Your task to perform on an android device: check the backup settings in the google photos Image 0: 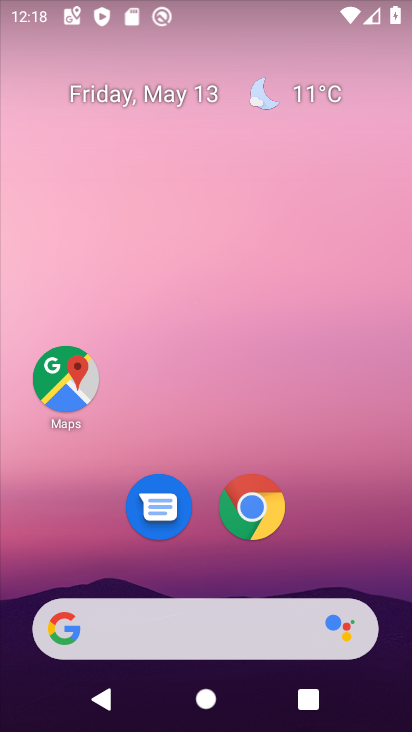
Step 0: drag from (204, 594) to (140, 33)
Your task to perform on an android device: check the backup settings in the google photos Image 1: 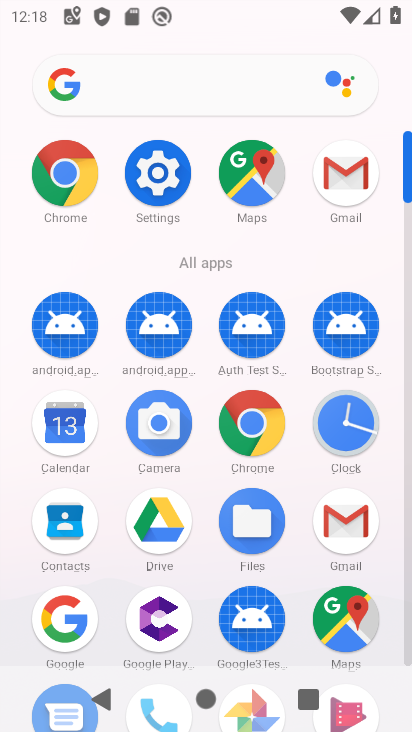
Step 1: drag from (211, 655) to (203, 196)
Your task to perform on an android device: check the backup settings in the google photos Image 2: 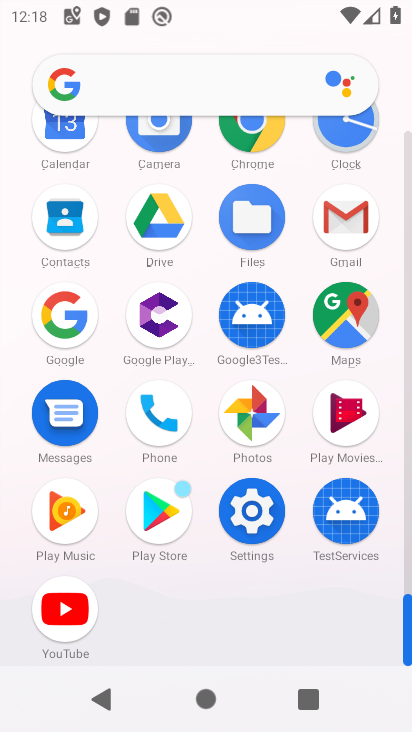
Step 2: click (260, 423)
Your task to perform on an android device: check the backup settings in the google photos Image 3: 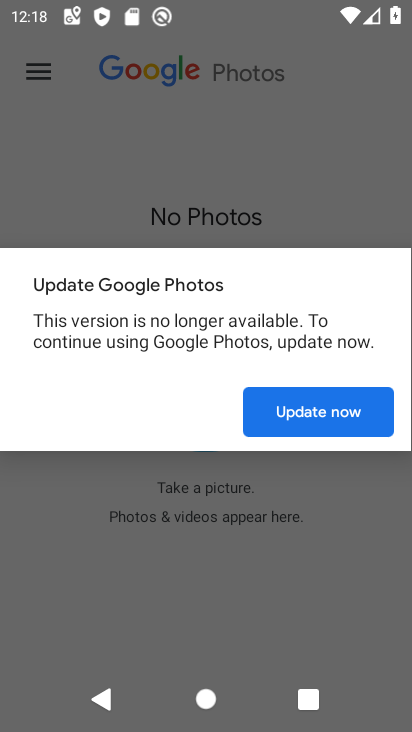
Step 3: click (310, 406)
Your task to perform on an android device: check the backup settings in the google photos Image 4: 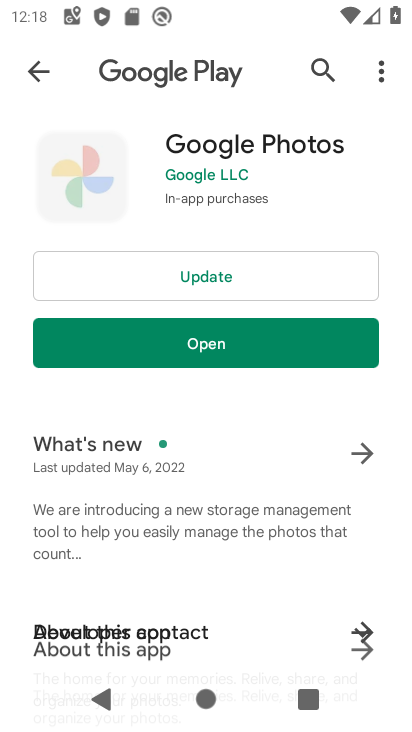
Step 4: click (242, 343)
Your task to perform on an android device: check the backup settings in the google photos Image 5: 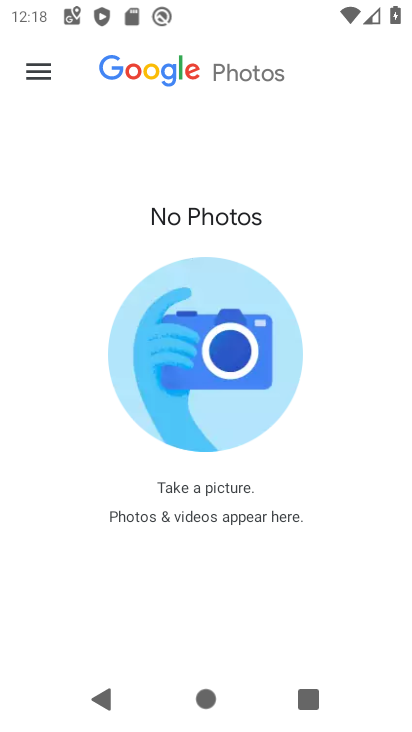
Step 5: click (30, 74)
Your task to perform on an android device: check the backup settings in the google photos Image 6: 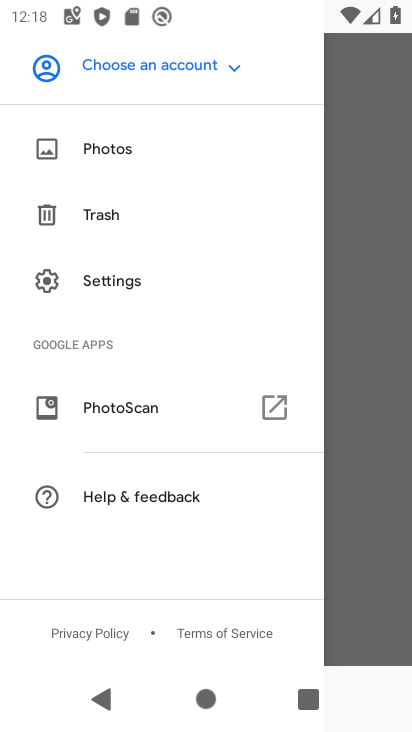
Step 6: click (99, 71)
Your task to perform on an android device: check the backup settings in the google photos Image 7: 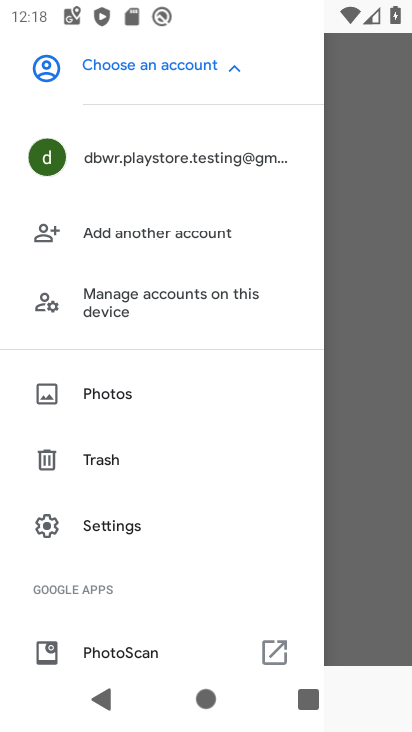
Step 7: click (145, 166)
Your task to perform on an android device: check the backup settings in the google photos Image 8: 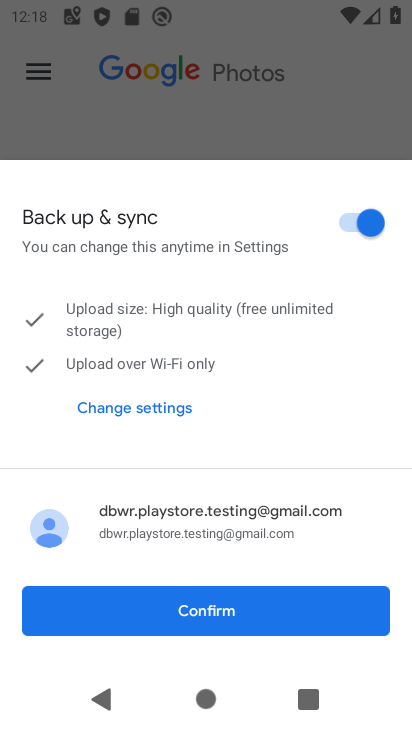
Step 8: click (151, 406)
Your task to perform on an android device: check the backup settings in the google photos Image 9: 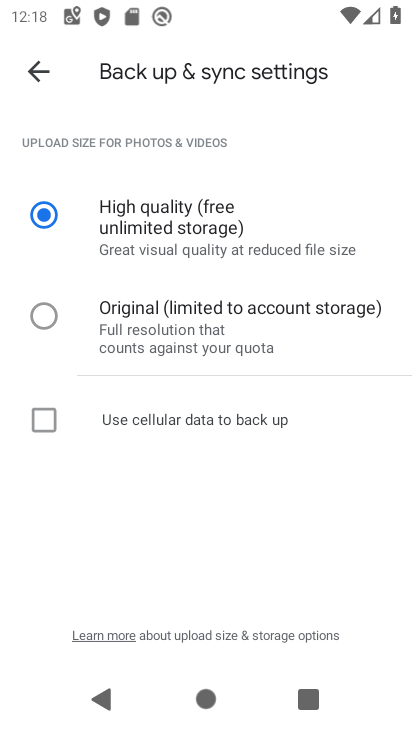
Step 9: task complete